Your task to perform on an android device: set the stopwatch Image 0: 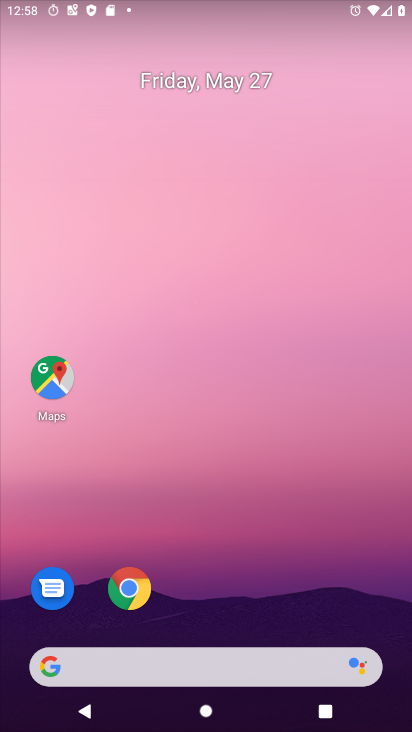
Step 0: press home button
Your task to perform on an android device: set the stopwatch Image 1: 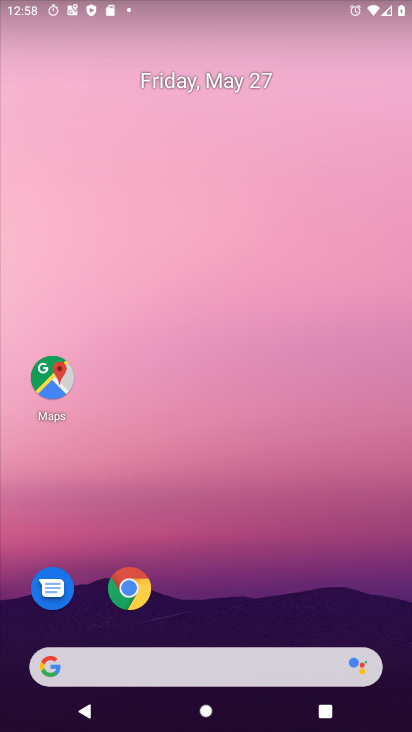
Step 1: drag from (214, 628) to (211, 47)
Your task to perform on an android device: set the stopwatch Image 2: 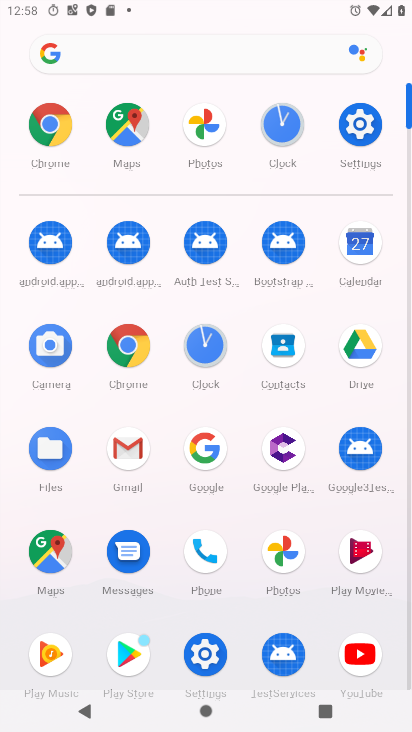
Step 2: click (280, 112)
Your task to perform on an android device: set the stopwatch Image 3: 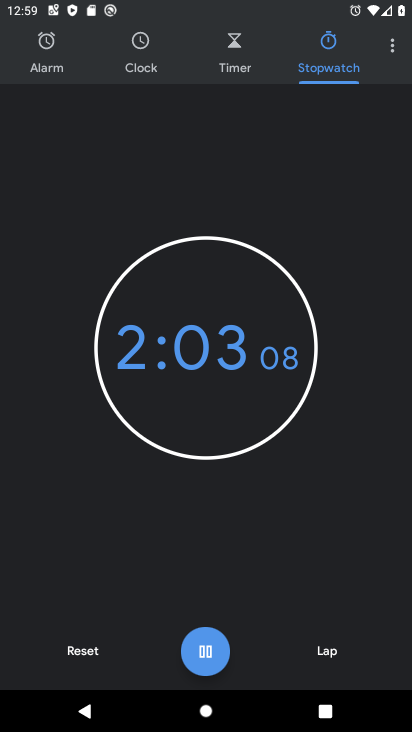
Step 3: click (89, 651)
Your task to perform on an android device: set the stopwatch Image 4: 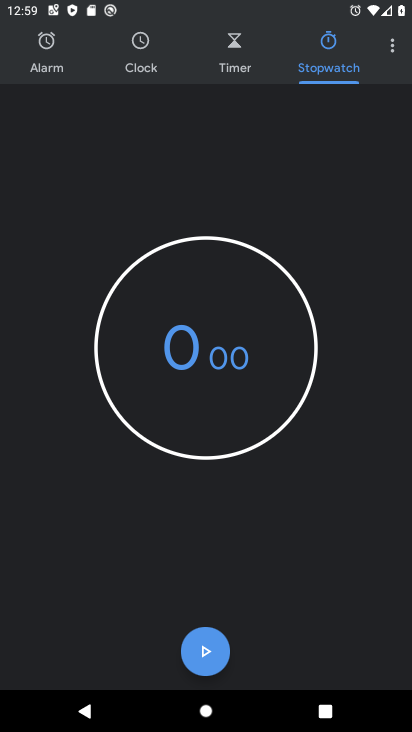
Step 4: click (206, 647)
Your task to perform on an android device: set the stopwatch Image 5: 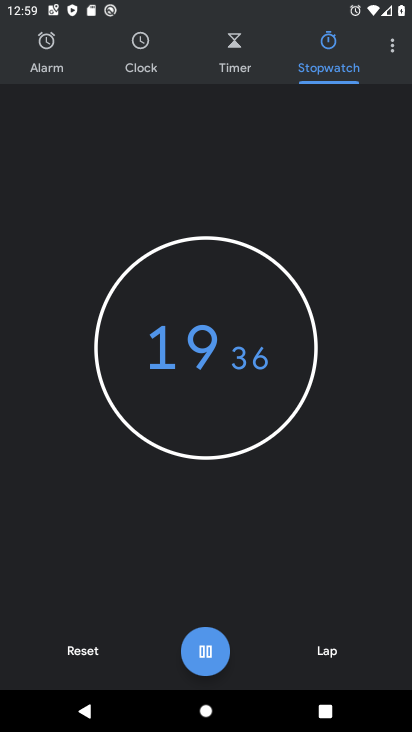
Step 5: task complete